Your task to perform on an android device: refresh tabs in the chrome app Image 0: 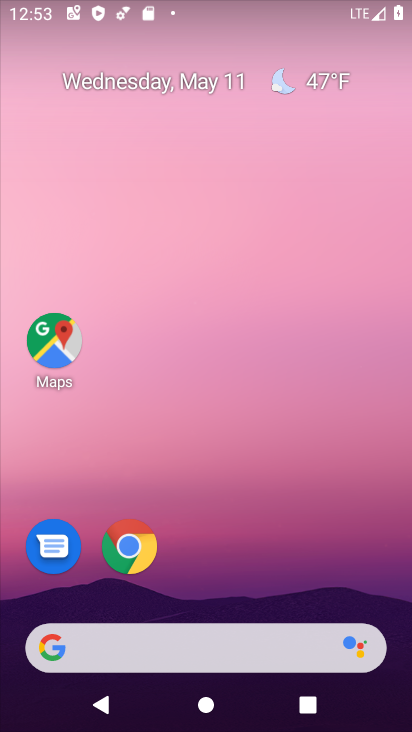
Step 0: click (146, 552)
Your task to perform on an android device: refresh tabs in the chrome app Image 1: 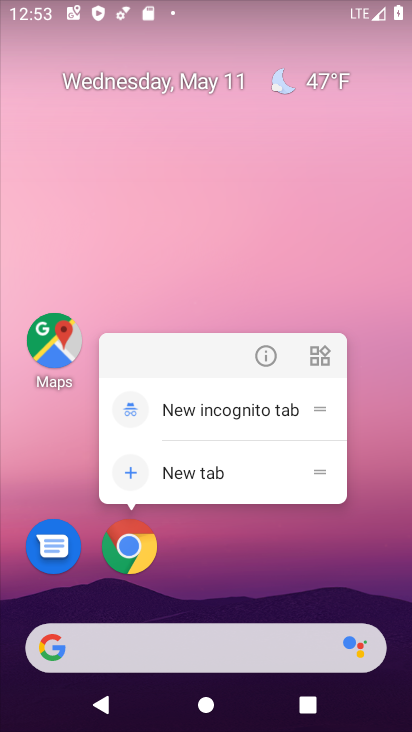
Step 1: click (146, 552)
Your task to perform on an android device: refresh tabs in the chrome app Image 2: 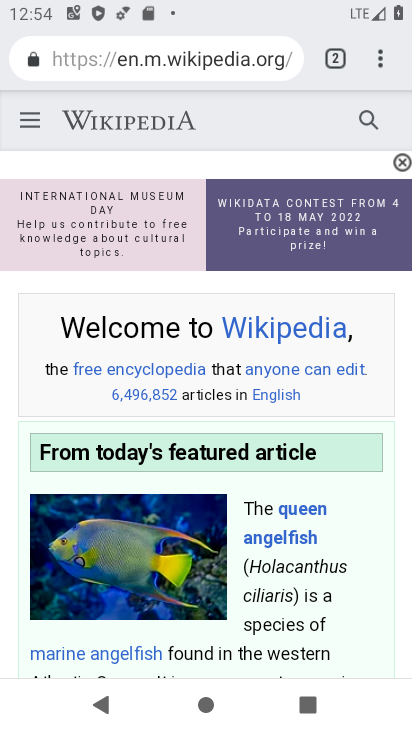
Step 2: click (388, 58)
Your task to perform on an android device: refresh tabs in the chrome app Image 3: 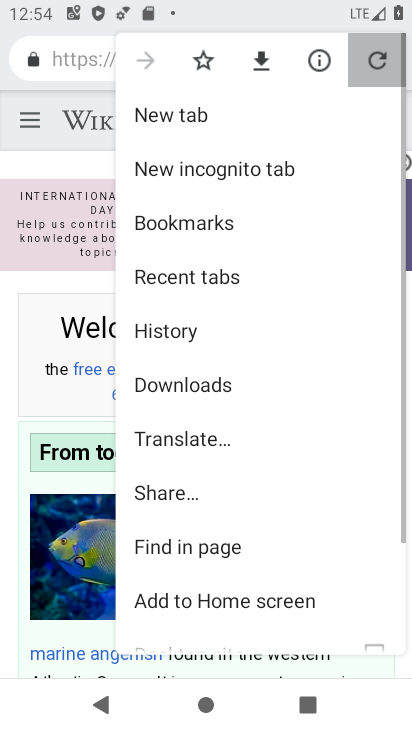
Step 3: click (388, 58)
Your task to perform on an android device: refresh tabs in the chrome app Image 4: 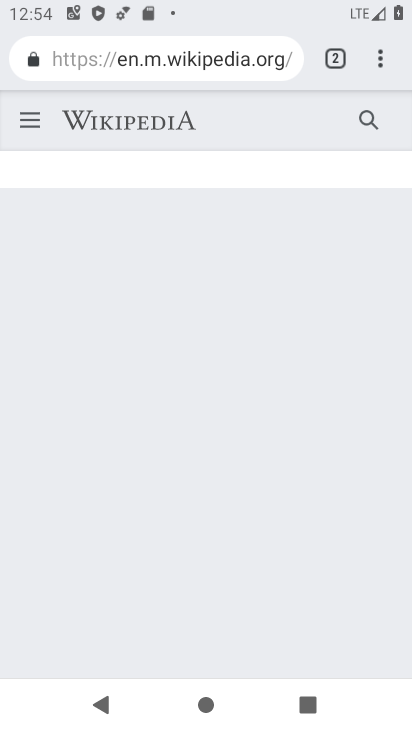
Step 4: task complete